Your task to perform on an android device: turn off notifications in google photos Image 0: 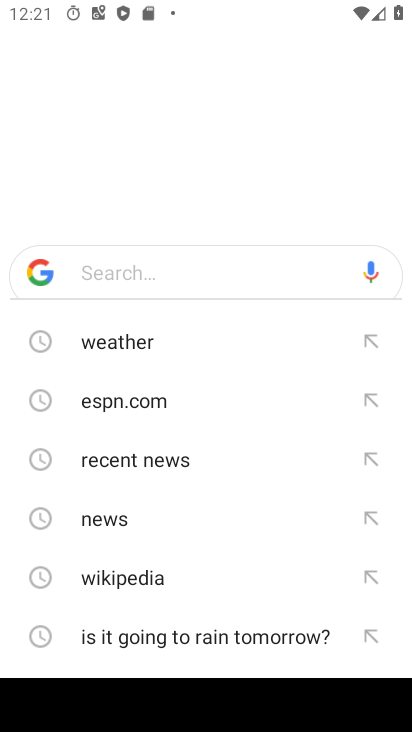
Step 0: press home button
Your task to perform on an android device: turn off notifications in google photos Image 1: 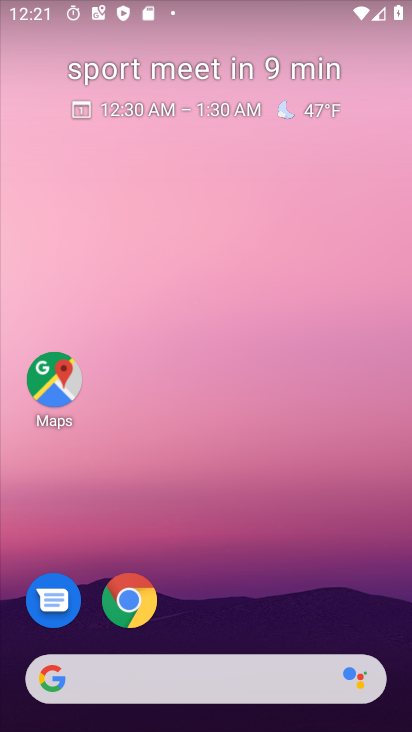
Step 1: drag from (196, 636) to (245, 21)
Your task to perform on an android device: turn off notifications in google photos Image 2: 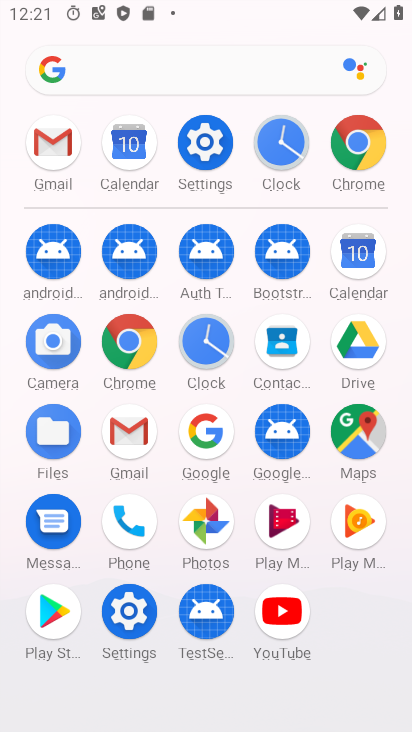
Step 2: click (217, 507)
Your task to perform on an android device: turn off notifications in google photos Image 3: 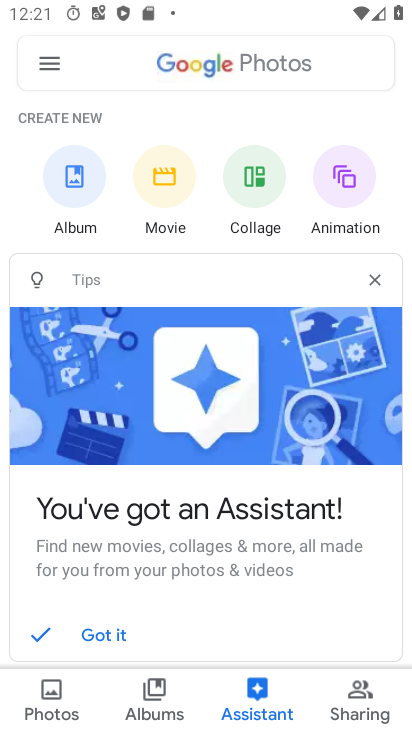
Step 3: click (39, 63)
Your task to perform on an android device: turn off notifications in google photos Image 4: 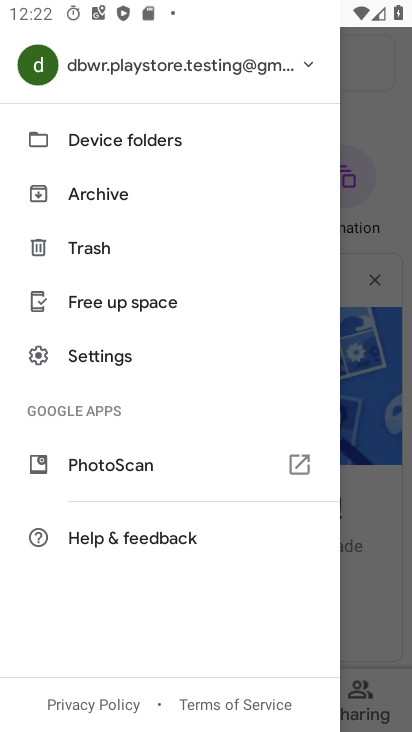
Step 4: click (101, 356)
Your task to perform on an android device: turn off notifications in google photos Image 5: 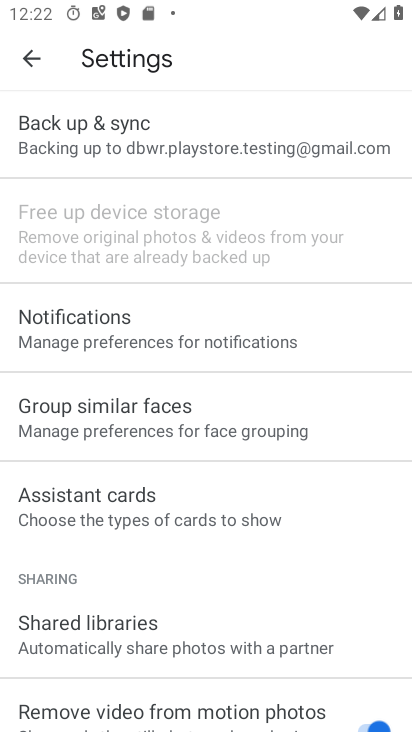
Step 5: click (134, 326)
Your task to perform on an android device: turn off notifications in google photos Image 6: 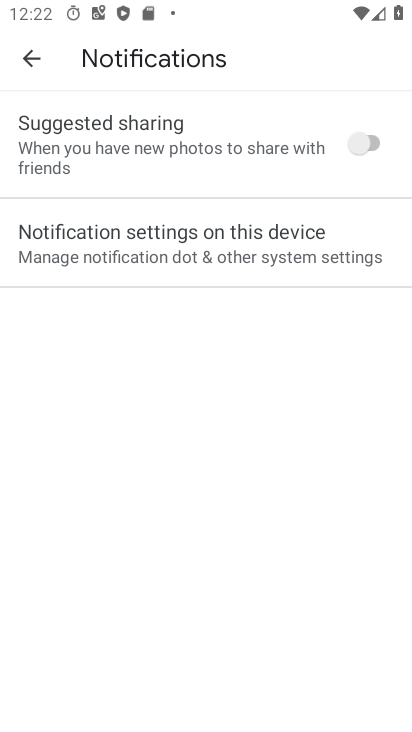
Step 6: click (269, 218)
Your task to perform on an android device: turn off notifications in google photos Image 7: 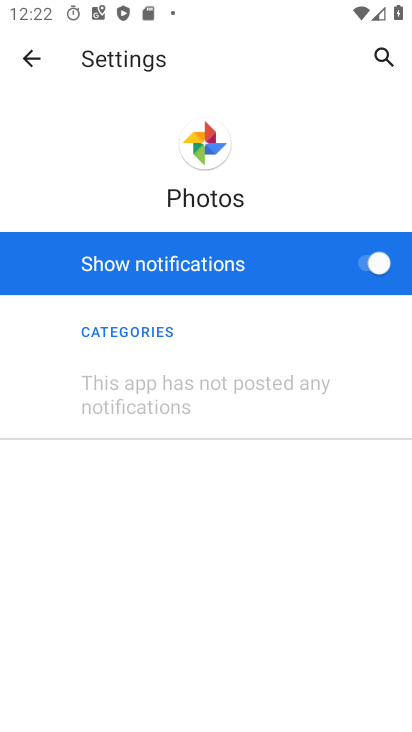
Step 7: click (367, 265)
Your task to perform on an android device: turn off notifications in google photos Image 8: 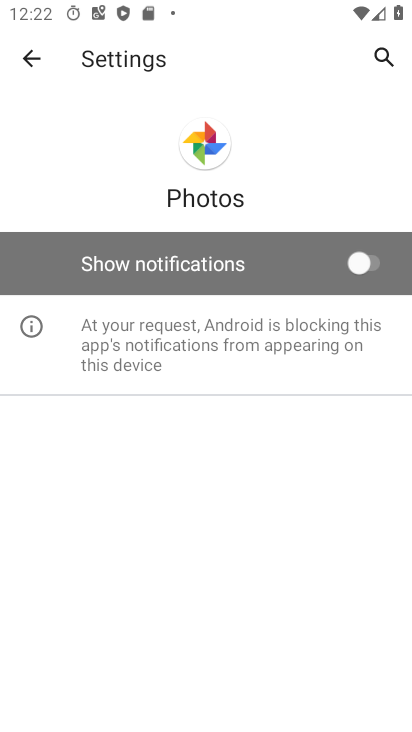
Step 8: task complete